Your task to perform on an android device: Open ESPN.com Image 0: 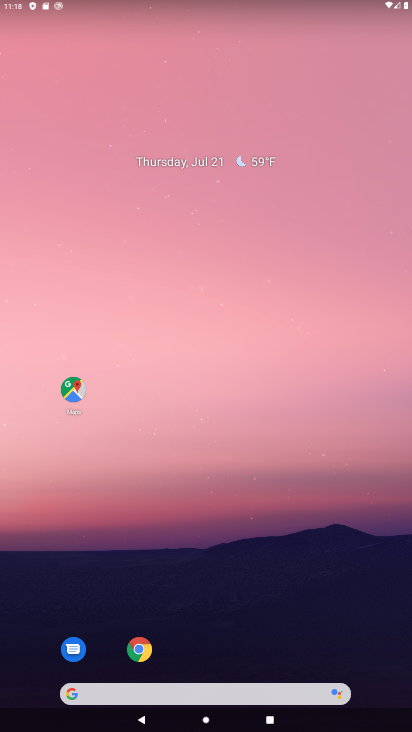
Step 0: drag from (90, 699) to (95, 293)
Your task to perform on an android device: Open ESPN.com Image 1: 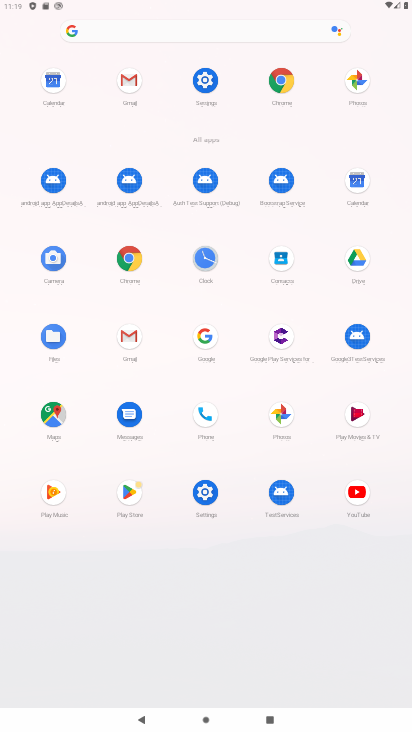
Step 1: click (125, 265)
Your task to perform on an android device: Open ESPN.com Image 2: 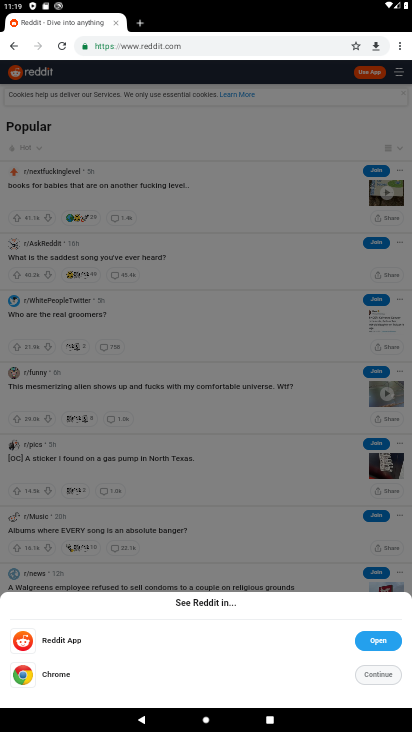
Step 2: press back button
Your task to perform on an android device: Open ESPN.com Image 3: 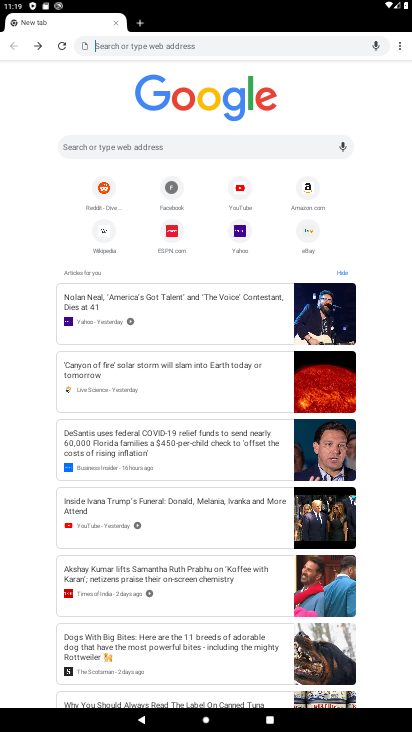
Step 3: click (170, 237)
Your task to perform on an android device: Open ESPN.com Image 4: 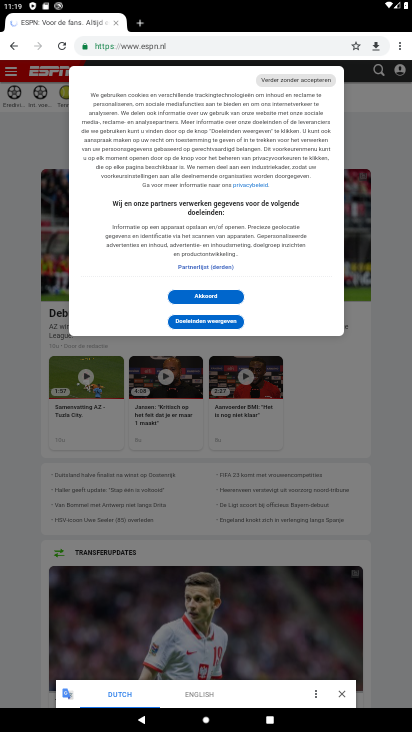
Step 4: task complete